Your task to perform on an android device: Turn on the flashlight Image 0: 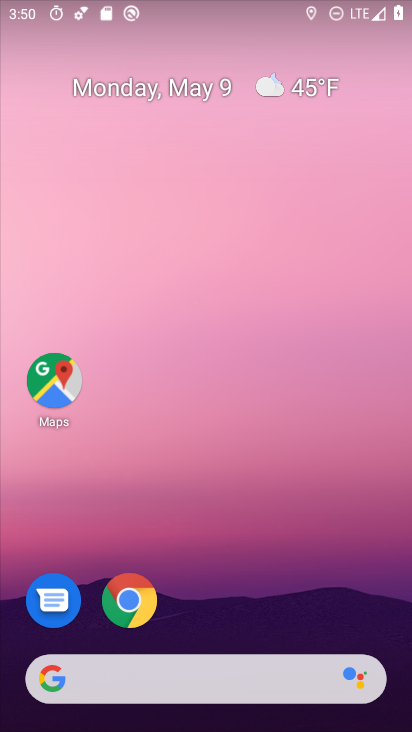
Step 0: drag from (224, 587) to (312, 64)
Your task to perform on an android device: Turn on the flashlight Image 1: 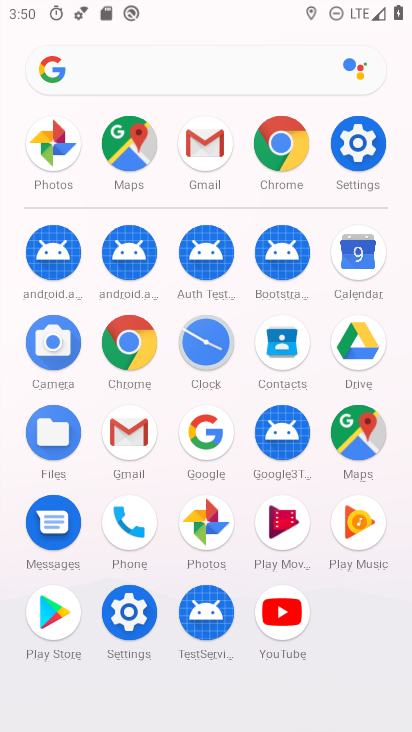
Step 1: click (340, 149)
Your task to perform on an android device: Turn on the flashlight Image 2: 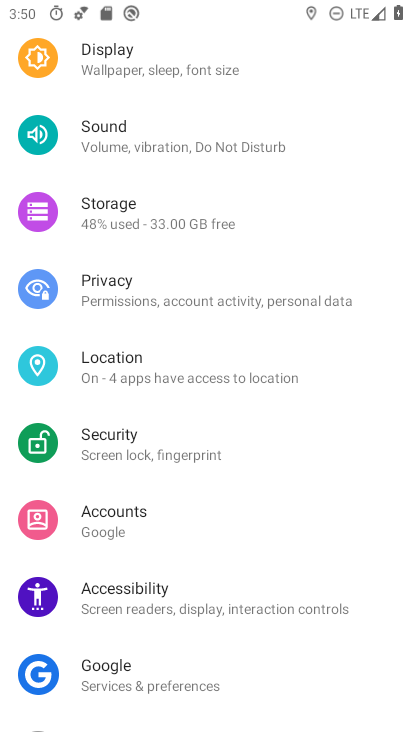
Step 2: drag from (250, 146) to (184, 656)
Your task to perform on an android device: Turn on the flashlight Image 3: 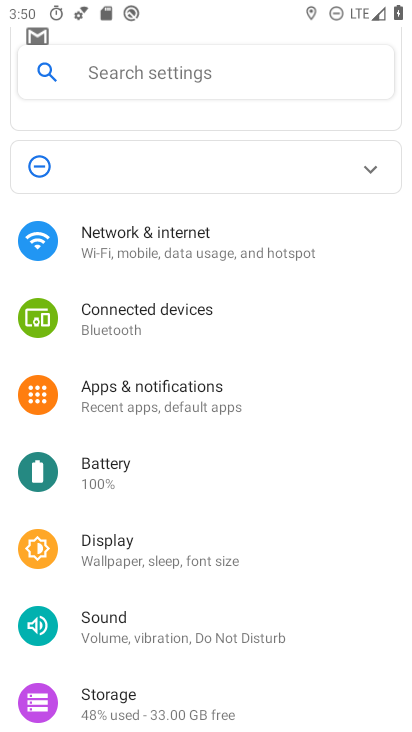
Step 3: click (228, 61)
Your task to perform on an android device: Turn on the flashlight Image 4: 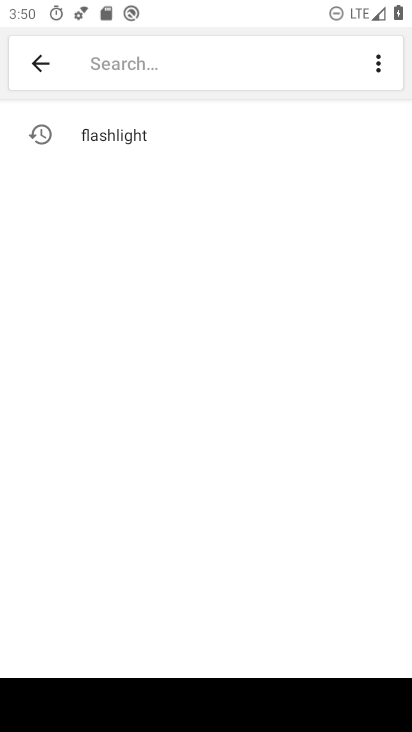
Step 4: type "flashlight"
Your task to perform on an android device: Turn on the flashlight Image 5: 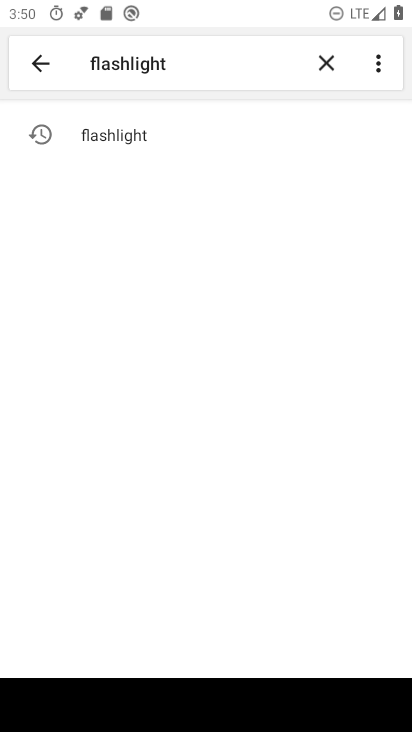
Step 5: click (138, 119)
Your task to perform on an android device: Turn on the flashlight Image 6: 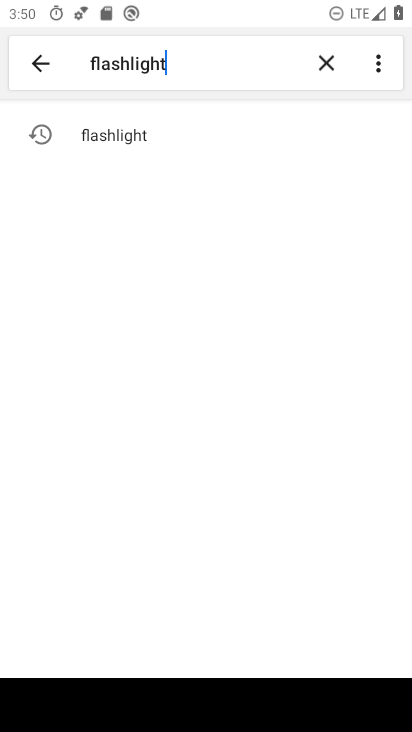
Step 6: click (125, 134)
Your task to perform on an android device: Turn on the flashlight Image 7: 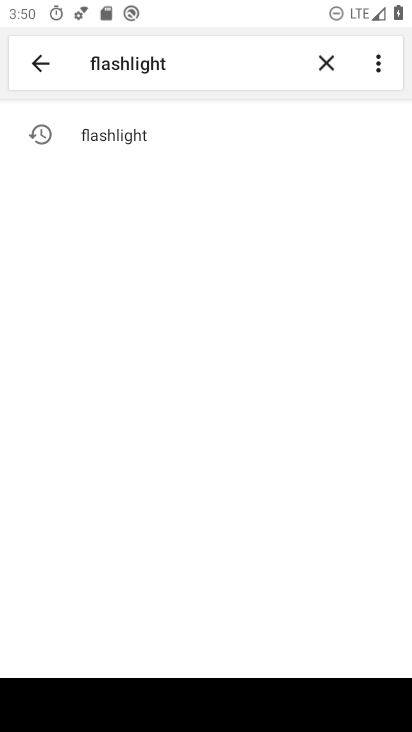
Step 7: click (85, 143)
Your task to perform on an android device: Turn on the flashlight Image 8: 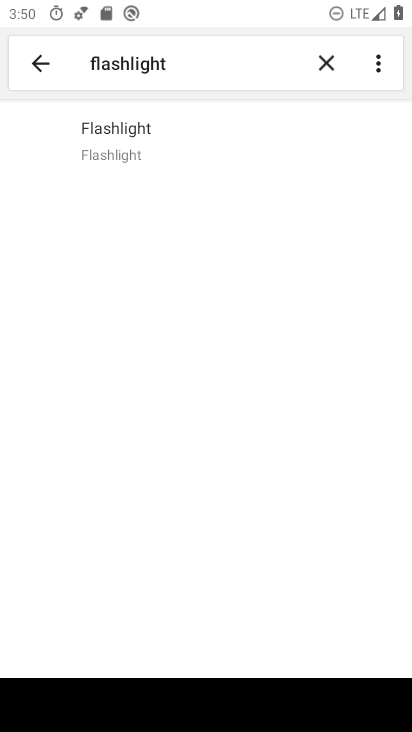
Step 8: task complete